Your task to perform on an android device: Is it going to rain tomorrow? Image 0: 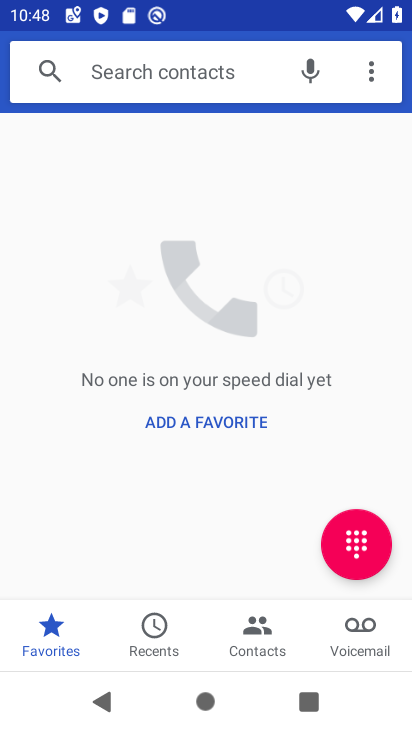
Step 0: press home button
Your task to perform on an android device: Is it going to rain tomorrow? Image 1: 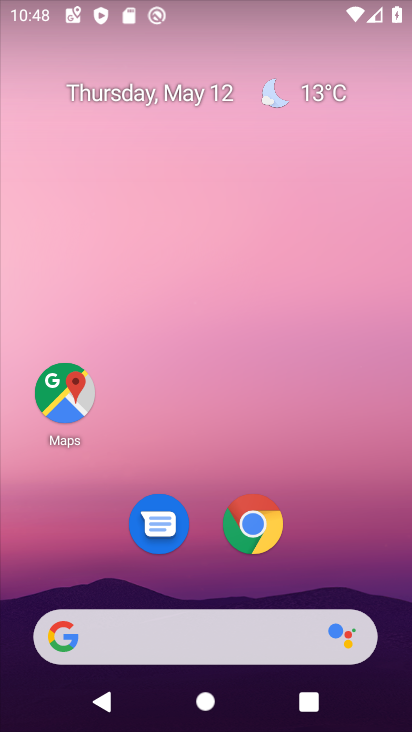
Step 1: drag from (268, 461) to (268, 57)
Your task to perform on an android device: Is it going to rain tomorrow? Image 2: 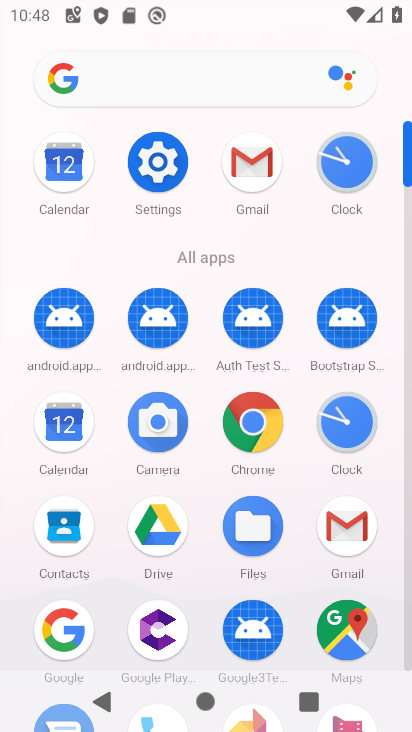
Step 2: click (69, 631)
Your task to perform on an android device: Is it going to rain tomorrow? Image 3: 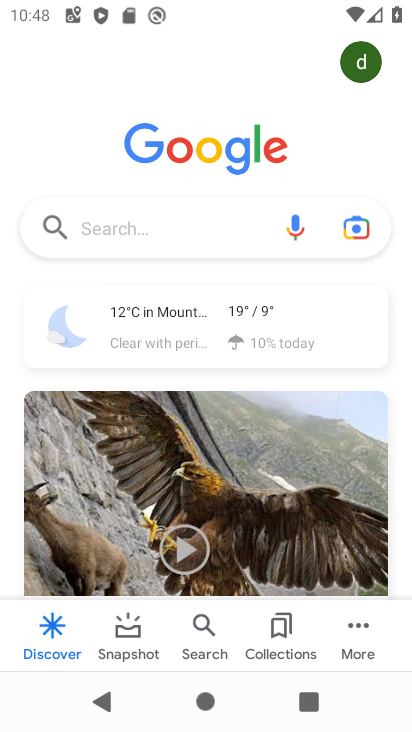
Step 3: click (266, 321)
Your task to perform on an android device: Is it going to rain tomorrow? Image 4: 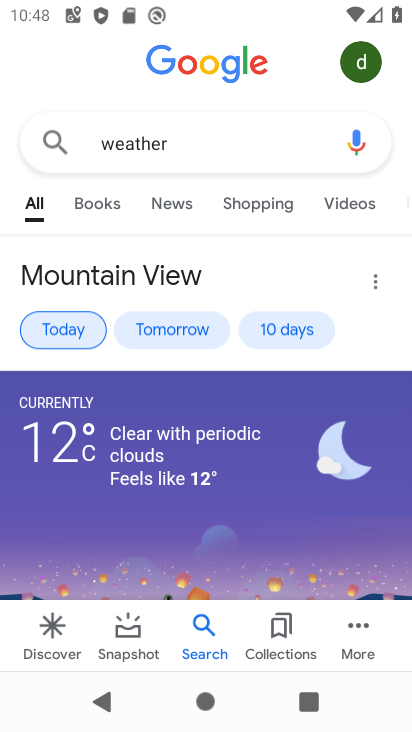
Step 4: click (65, 318)
Your task to perform on an android device: Is it going to rain tomorrow? Image 5: 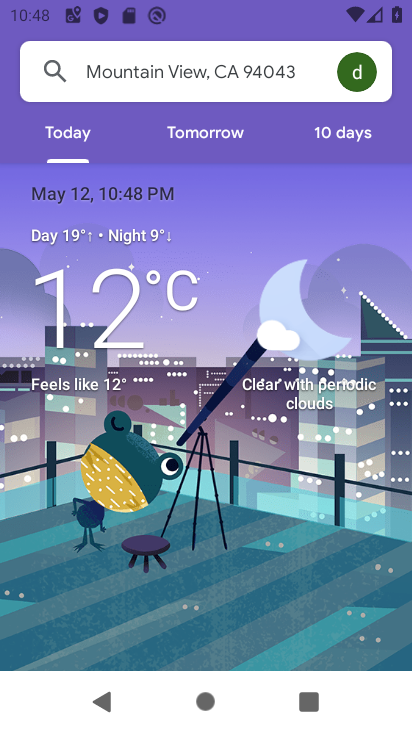
Step 5: click (227, 127)
Your task to perform on an android device: Is it going to rain tomorrow? Image 6: 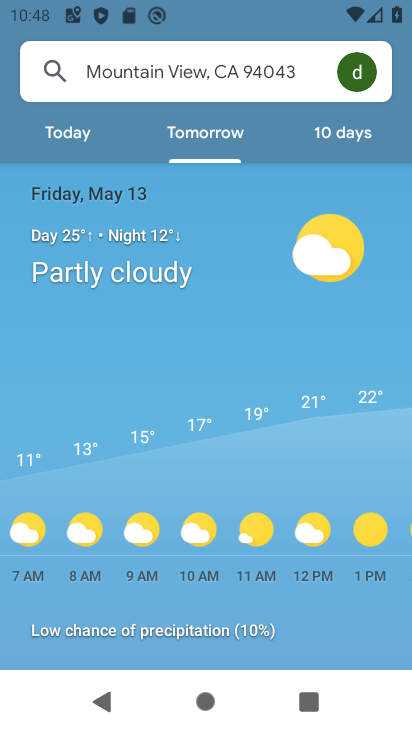
Step 6: task complete